Your task to perform on an android device: turn on airplane mode Image 0: 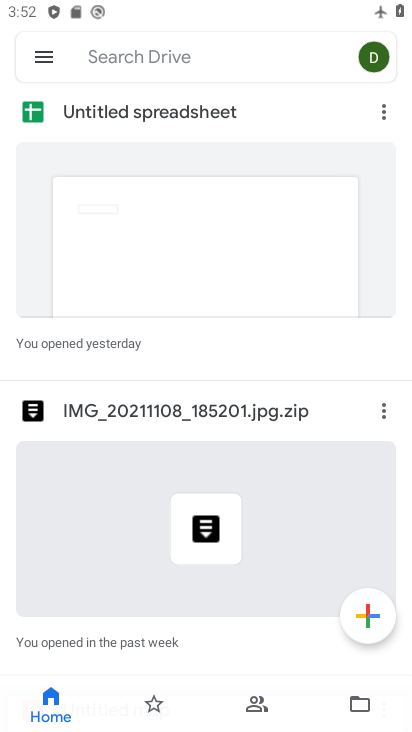
Step 0: press home button
Your task to perform on an android device: turn on airplane mode Image 1: 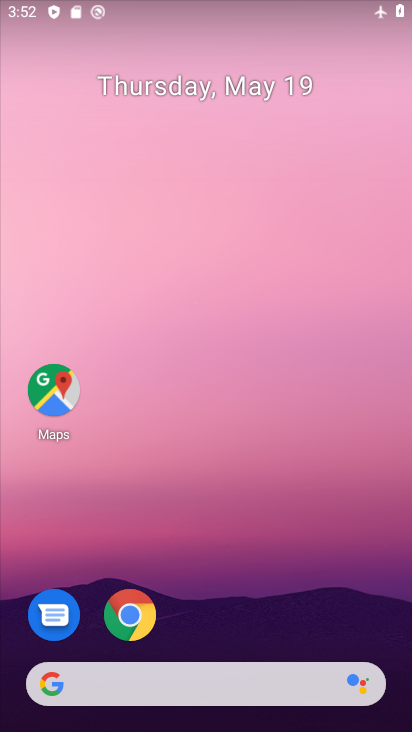
Step 1: drag from (246, 641) to (297, 1)
Your task to perform on an android device: turn on airplane mode Image 2: 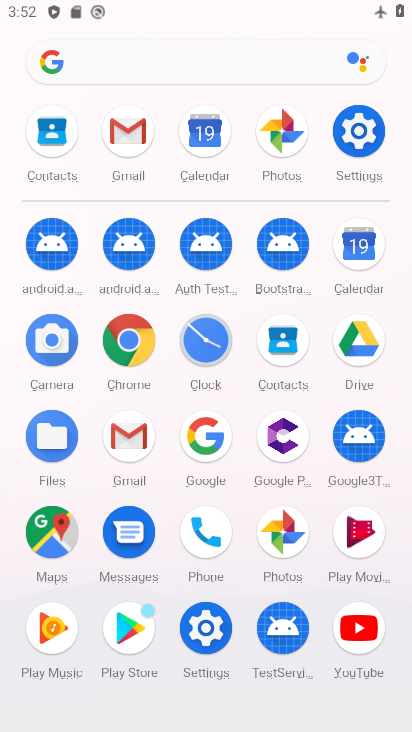
Step 2: click (368, 124)
Your task to perform on an android device: turn on airplane mode Image 3: 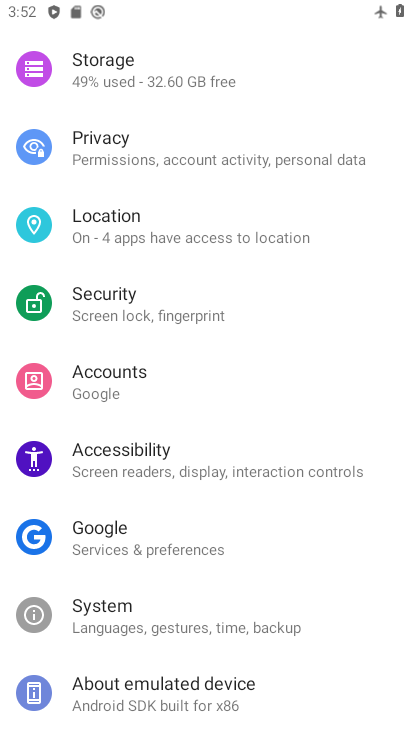
Step 3: drag from (210, 155) to (232, 635)
Your task to perform on an android device: turn on airplane mode Image 4: 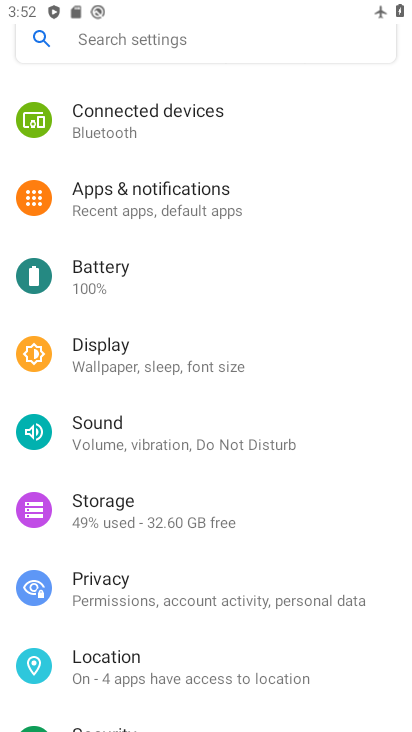
Step 4: drag from (143, 182) to (172, 585)
Your task to perform on an android device: turn on airplane mode Image 5: 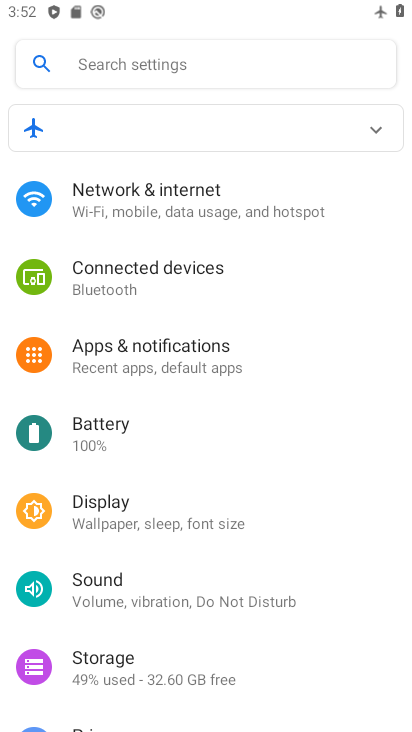
Step 5: click (128, 212)
Your task to perform on an android device: turn on airplane mode Image 6: 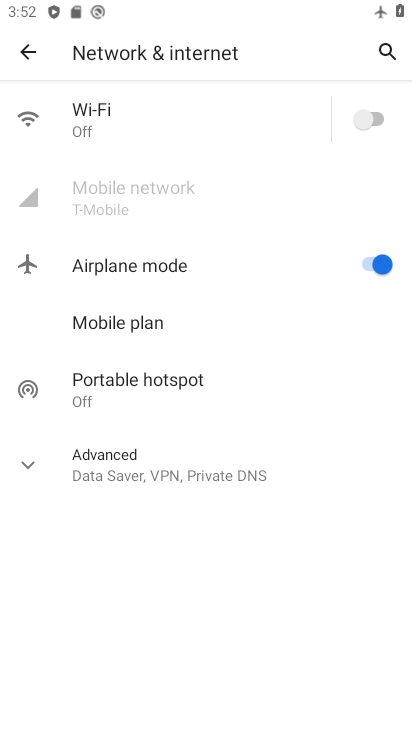
Step 6: task complete